Your task to perform on an android device: Find coffee shops on Maps Image 0: 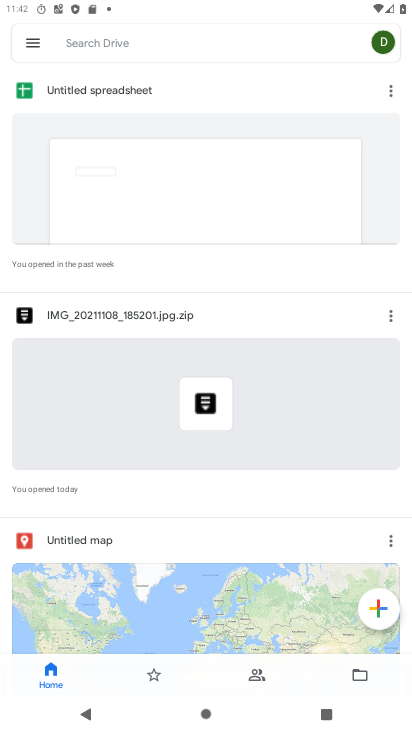
Step 0: press home button
Your task to perform on an android device: Find coffee shops on Maps Image 1: 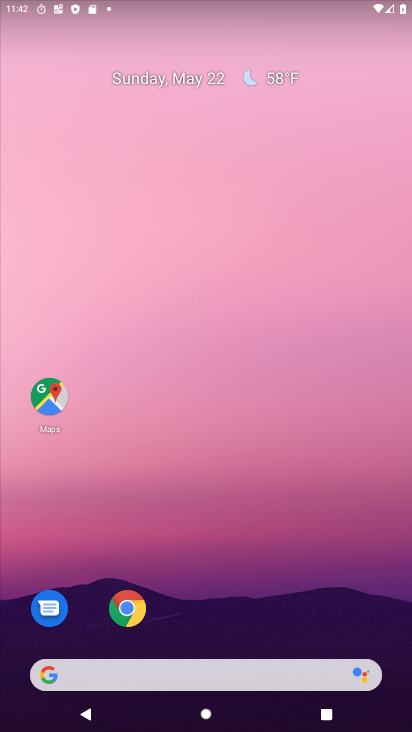
Step 1: drag from (228, 608) to (229, 200)
Your task to perform on an android device: Find coffee shops on Maps Image 2: 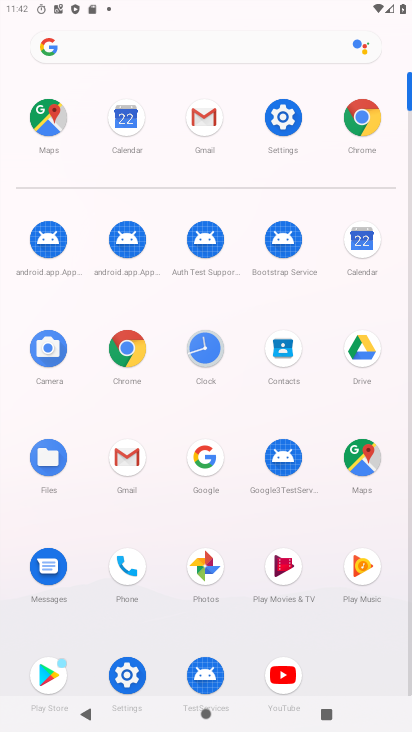
Step 2: click (49, 133)
Your task to perform on an android device: Find coffee shops on Maps Image 3: 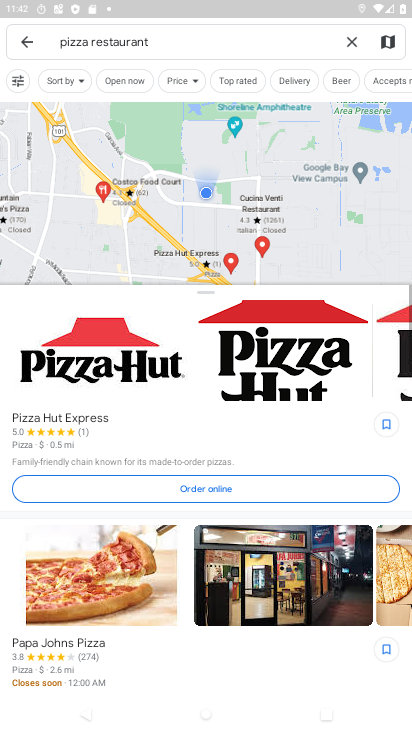
Step 3: click (353, 41)
Your task to perform on an android device: Find coffee shops on Maps Image 4: 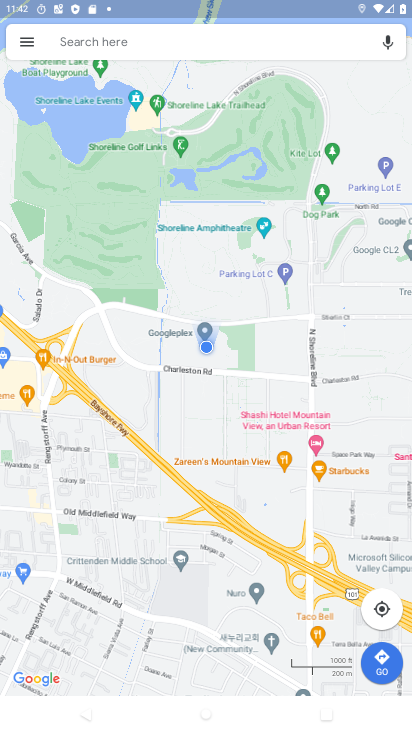
Step 4: click (209, 45)
Your task to perform on an android device: Find coffee shops on Maps Image 5: 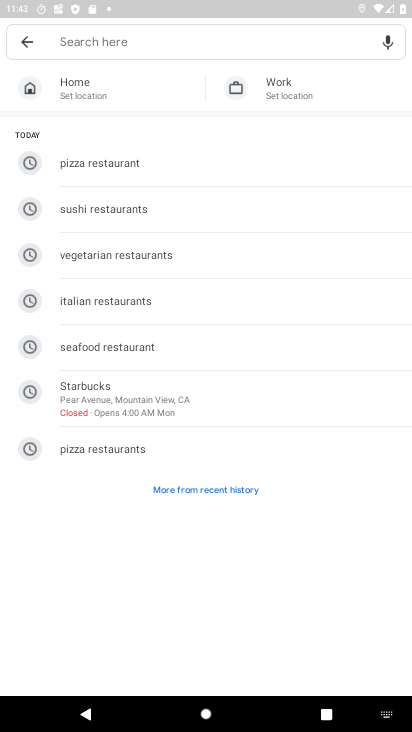
Step 5: type "coffee shops"
Your task to perform on an android device: Find coffee shops on Maps Image 6: 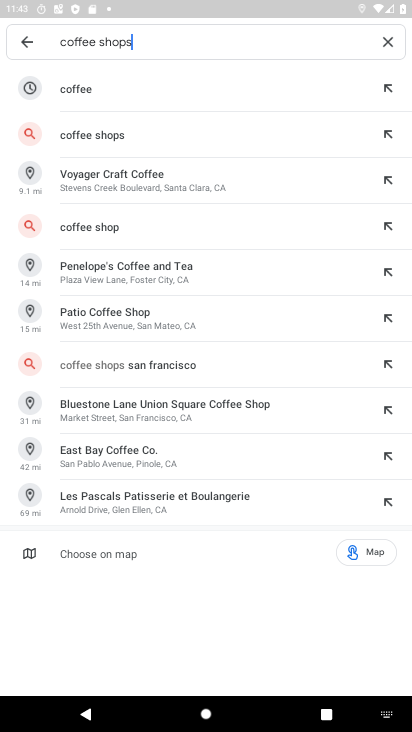
Step 6: click (163, 132)
Your task to perform on an android device: Find coffee shops on Maps Image 7: 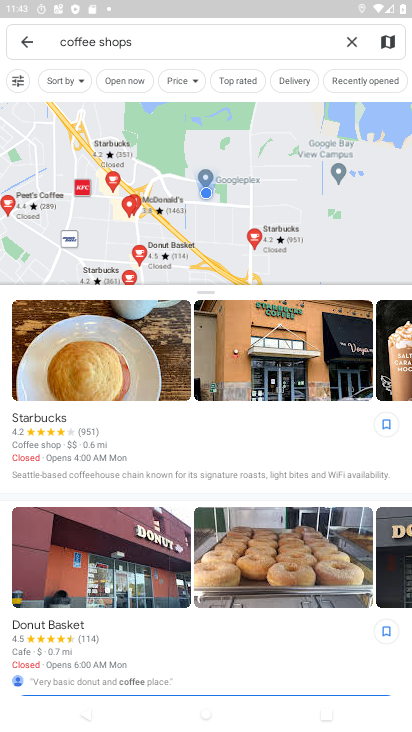
Step 7: task complete